Your task to perform on an android device: What's on my calendar tomorrow? Image 0: 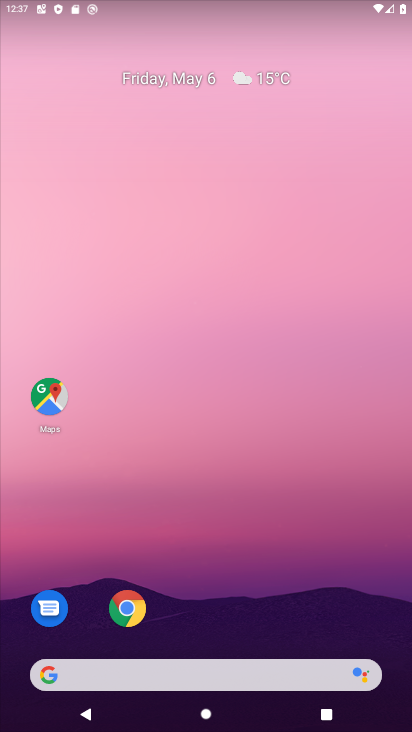
Step 0: drag from (156, 633) to (155, 285)
Your task to perform on an android device: What's on my calendar tomorrow? Image 1: 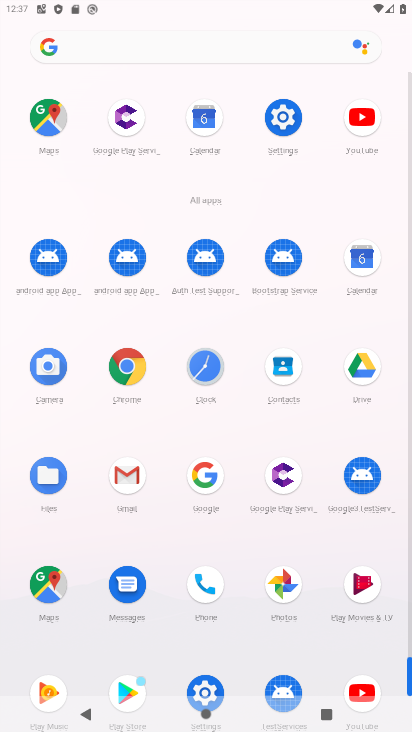
Step 1: click (356, 263)
Your task to perform on an android device: What's on my calendar tomorrow? Image 2: 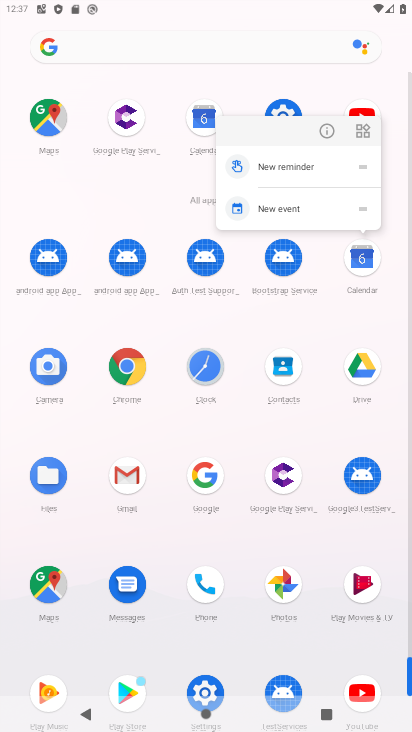
Step 2: click (323, 128)
Your task to perform on an android device: What's on my calendar tomorrow? Image 3: 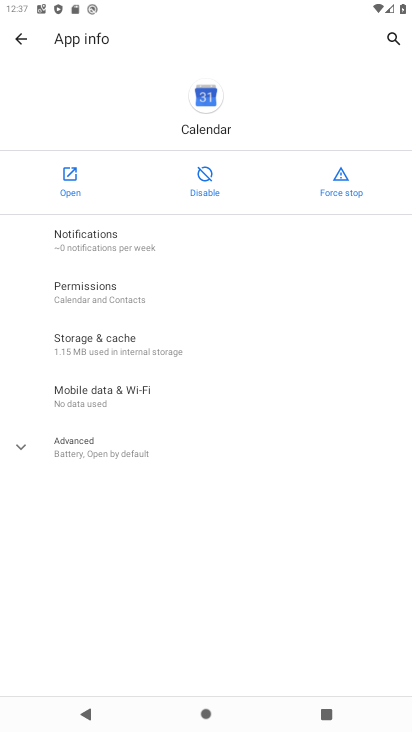
Step 3: click (68, 190)
Your task to perform on an android device: What's on my calendar tomorrow? Image 4: 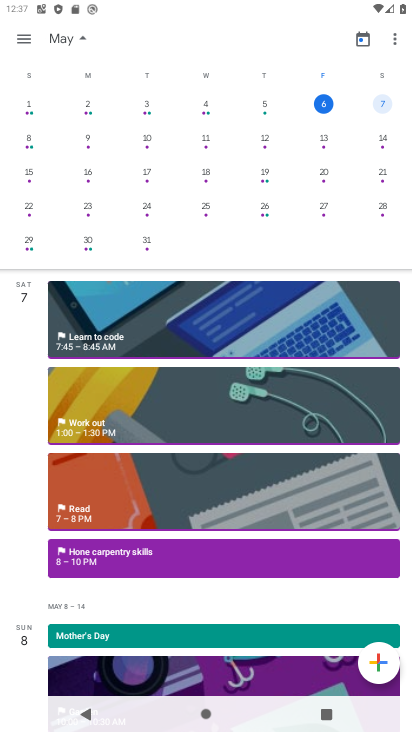
Step 4: drag from (196, 482) to (208, 159)
Your task to perform on an android device: What's on my calendar tomorrow? Image 5: 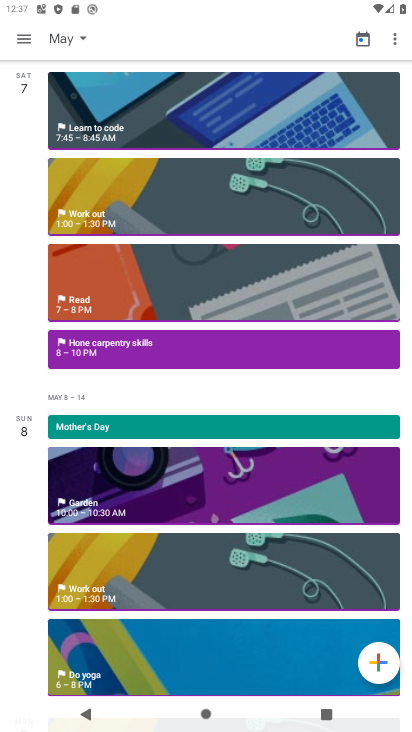
Step 5: drag from (207, 190) to (237, 730)
Your task to perform on an android device: What's on my calendar tomorrow? Image 6: 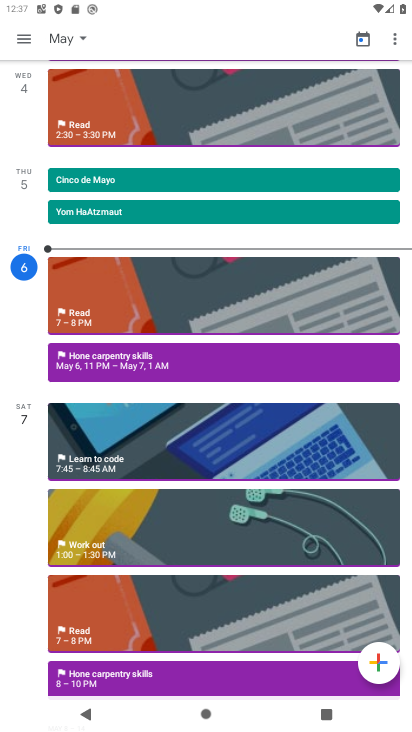
Step 6: click (294, 728)
Your task to perform on an android device: What's on my calendar tomorrow? Image 7: 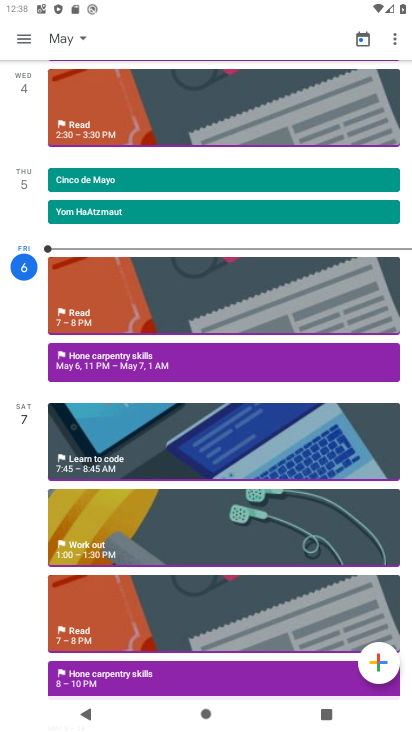
Step 7: drag from (308, 159) to (343, 716)
Your task to perform on an android device: What's on my calendar tomorrow? Image 8: 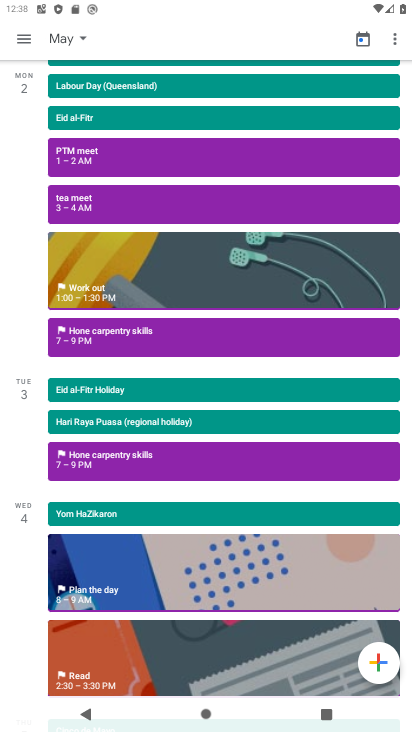
Step 8: drag from (218, 324) to (275, 722)
Your task to perform on an android device: What's on my calendar tomorrow? Image 9: 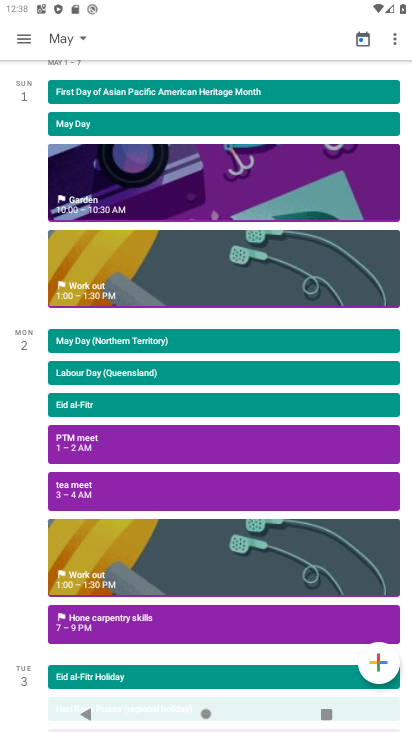
Step 9: click (71, 38)
Your task to perform on an android device: What's on my calendar tomorrow? Image 10: 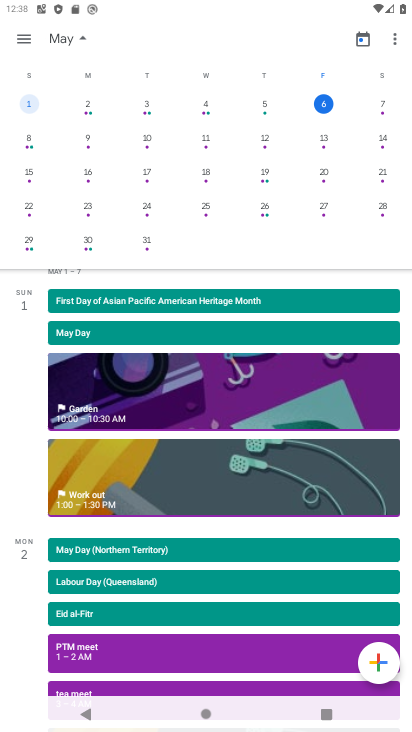
Step 10: click (377, 110)
Your task to perform on an android device: What's on my calendar tomorrow? Image 11: 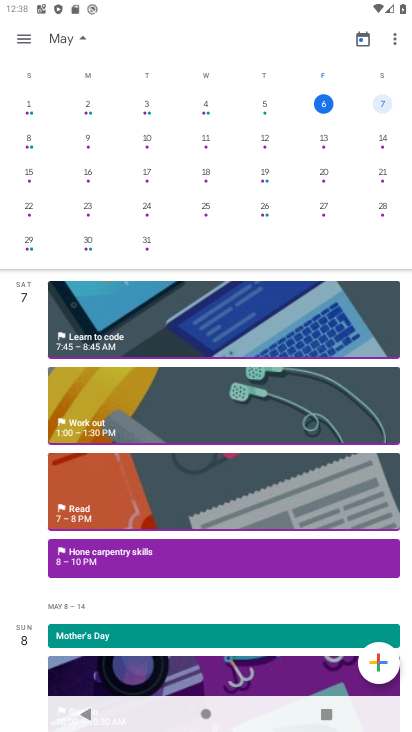
Step 11: task complete